Your task to perform on an android device: find which apps use the phone's location Image 0: 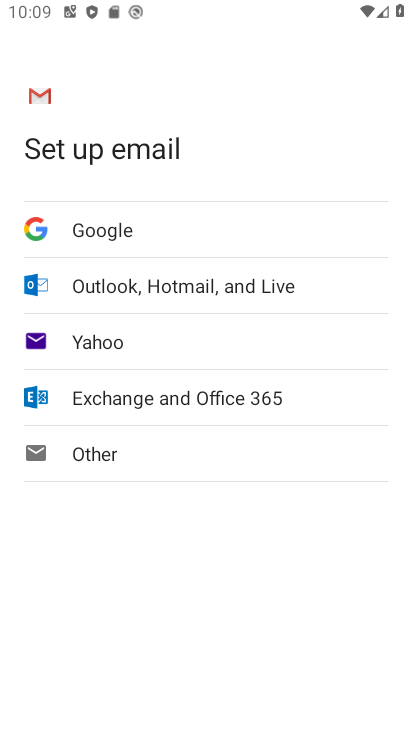
Step 0: press home button
Your task to perform on an android device: find which apps use the phone's location Image 1: 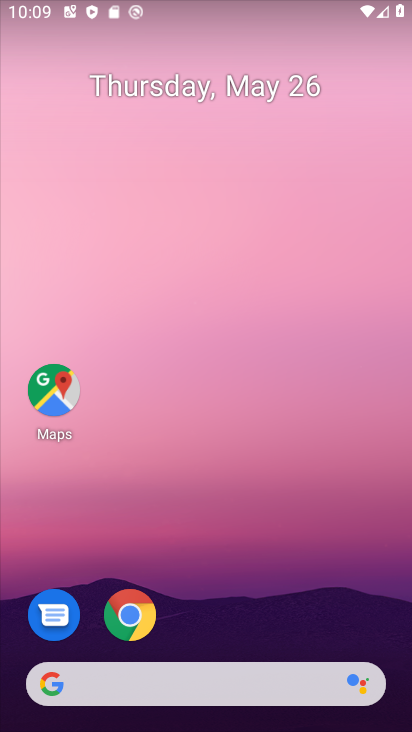
Step 1: drag from (264, 684) to (266, 30)
Your task to perform on an android device: find which apps use the phone's location Image 2: 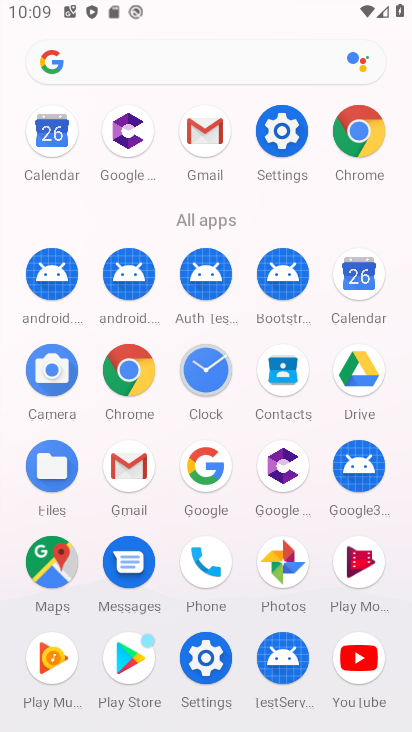
Step 2: click (283, 140)
Your task to perform on an android device: find which apps use the phone's location Image 3: 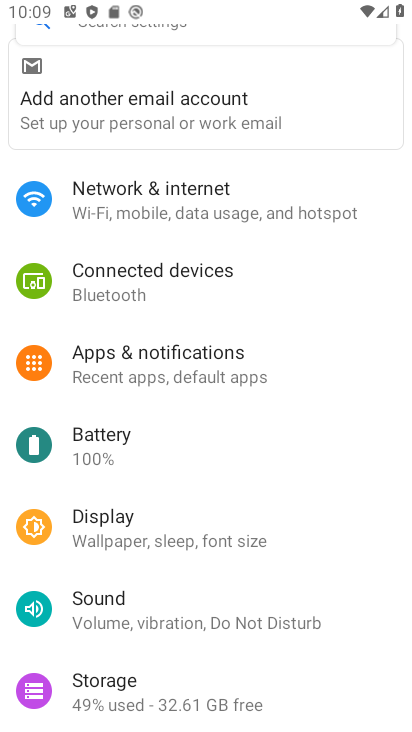
Step 3: drag from (220, 619) to (266, 190)
Your task to perform on an android device: find which apps use the phone's location Image 4: 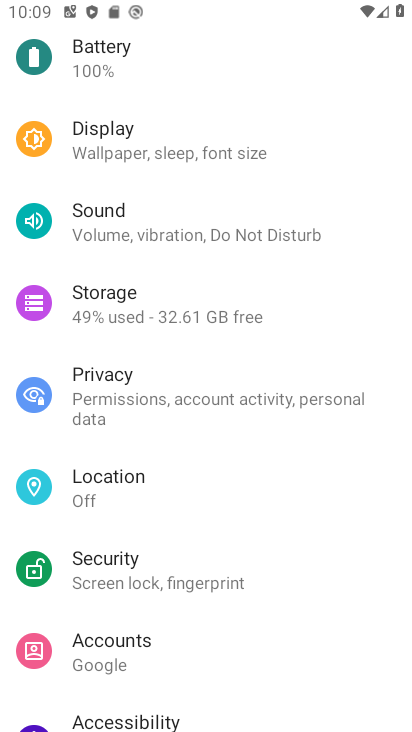
Step 4: click (185, 482)
Your task to perform on an android device: find which apps use the phone's location Image 5: 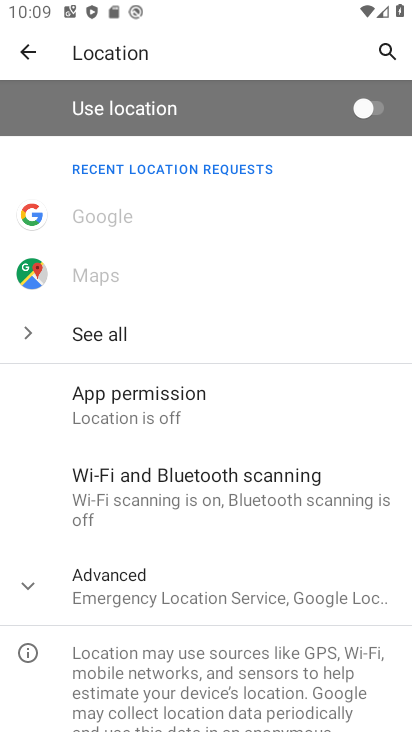
Step 5: click (172, 406)
Your task to perform on an android device: find which apps use the phone's location Image 6: 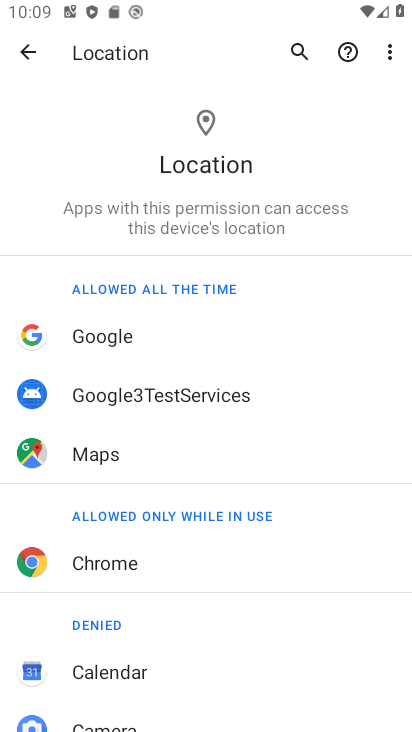
Step 6: task complete